Your task to perform on an android device: turn on priority inbox in the gmail app Image 0: 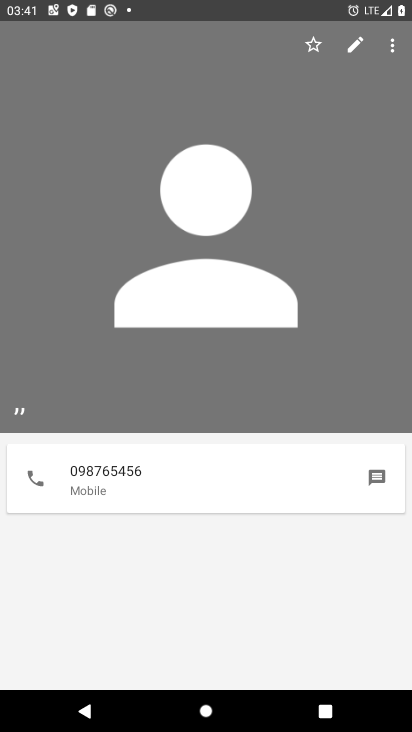
Step 0: press home button
Your task to perform on an android device: turn on priority inbox in the gmail app Image 1: 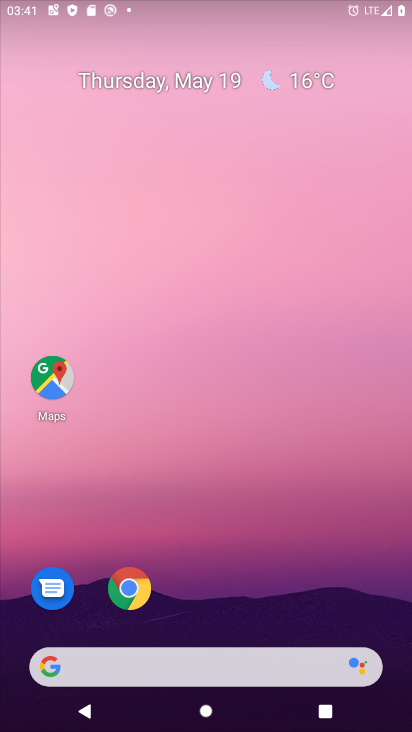
Step 1: drag from (239, 364) to (229, 67)
Your task to perform on an android device: turn on priority inbox in the gmail app Image 2: 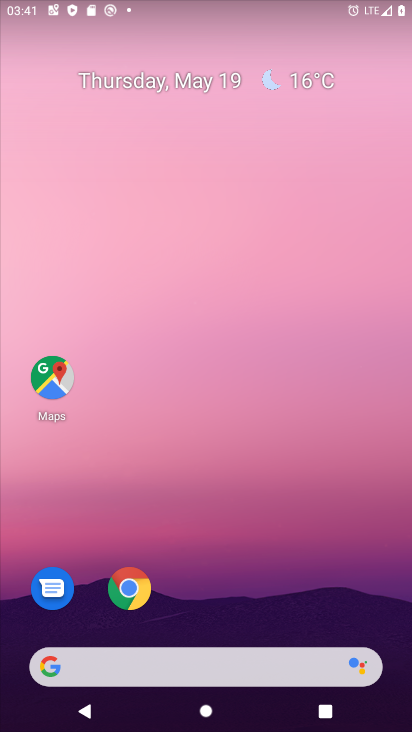
Step 2: drag from (237, 546) to (280, 121)
Your task to perform on an android device: turn on priority inbox in the gmail app Image 3: 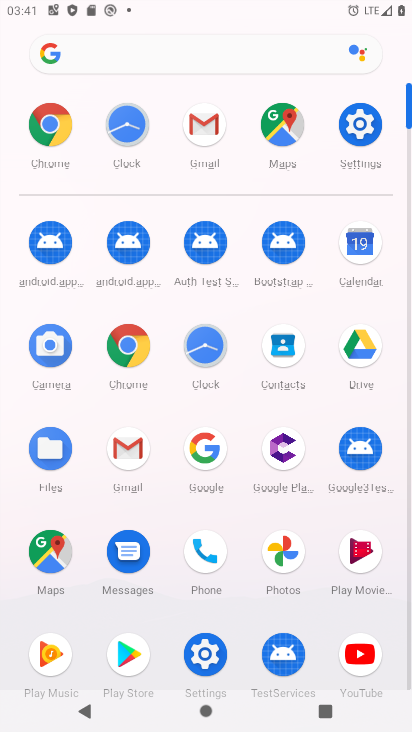
Step 3: click (206, 128)
Your task to perform on an android device: turn on priority inbox in the gmail app Image 4: 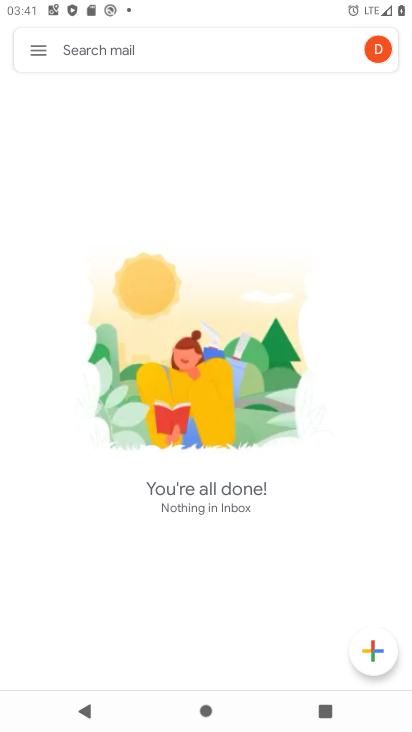
Step 4: click (24, 39)
Your task to perform on an android device: turn on priority inbox in the gmail app Image 5: 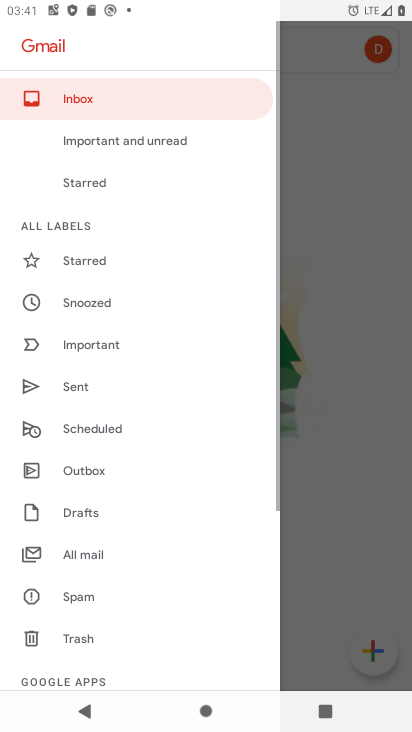
Step 5: drag from (83, 654) to (143, 87)
Your task to perform on an android device: turn on priority inbox in the gmail app Image 6: 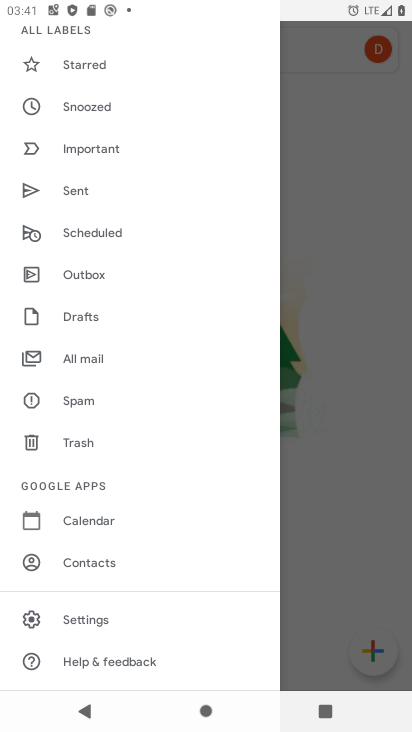
Step 6: click (100, 619)
Your task to perform on an android device: turn on priority inbox in the gmail app Image 7: 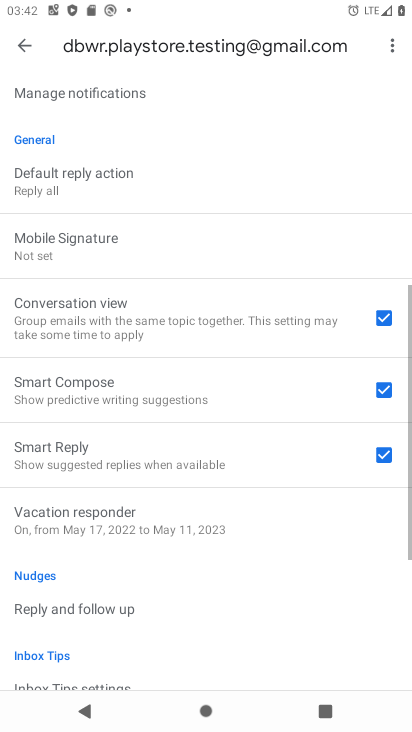
Step 7: drag from (219, 578) to (258, 55)
Your task to perform on an android device: turn on priority inbox in the gmail app Image 8: 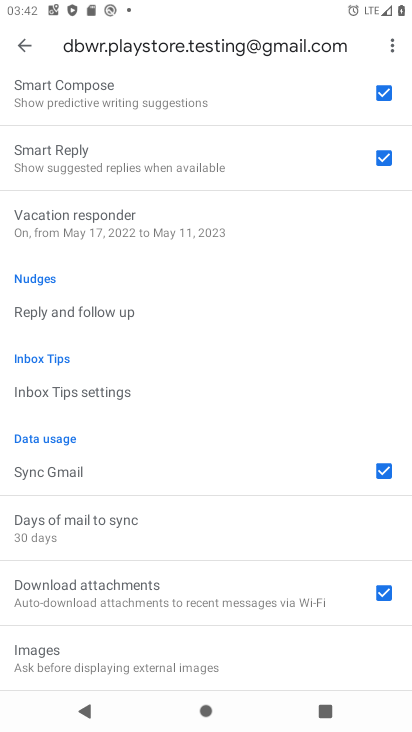
Step 8: drag from (198, 255) to (236, 707)
Your task to perform on an android device: turn on priority inbox in the gmail app Image 9: 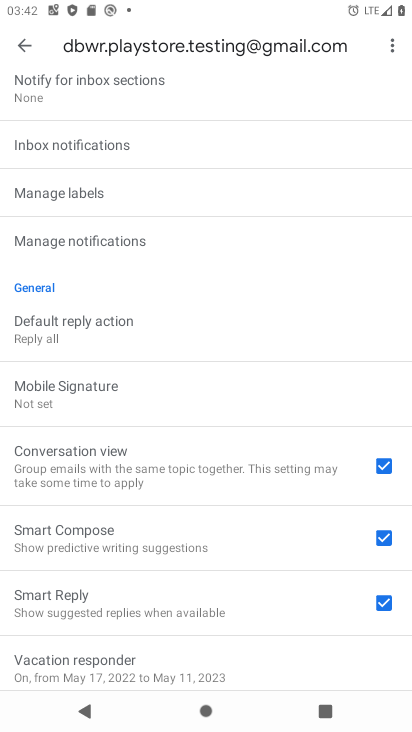
Step 9: drag from (181, 203) to (236, 648)
Your task to perform on an android device: turn on priority inbox in the gmail app Image 10: 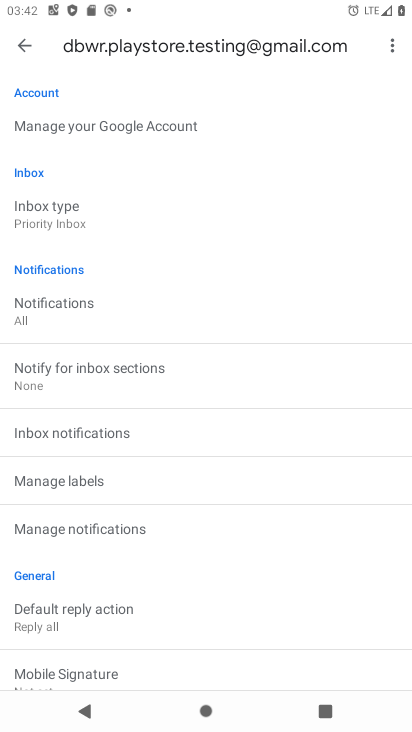
Step 10: drag from (168, 225) to (193, 576)
Your task to perform on an android device: turn on priority inbox in the gmail app Image 11: 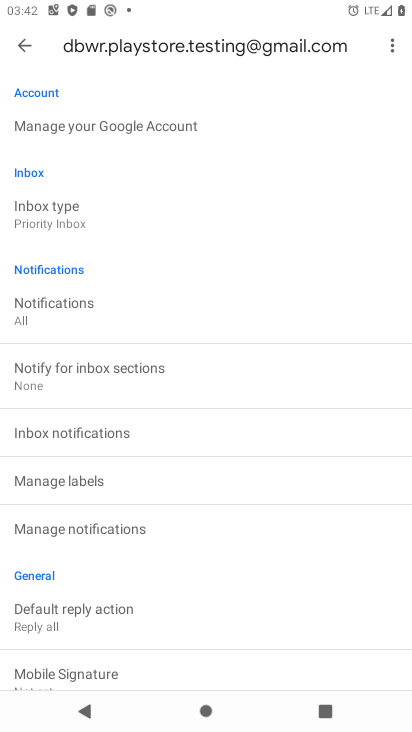
Step 11: drag from (183, 539) to (273, 153)
Your task to perform on an android device: turn on priority inbox in the gmail app Image 12: 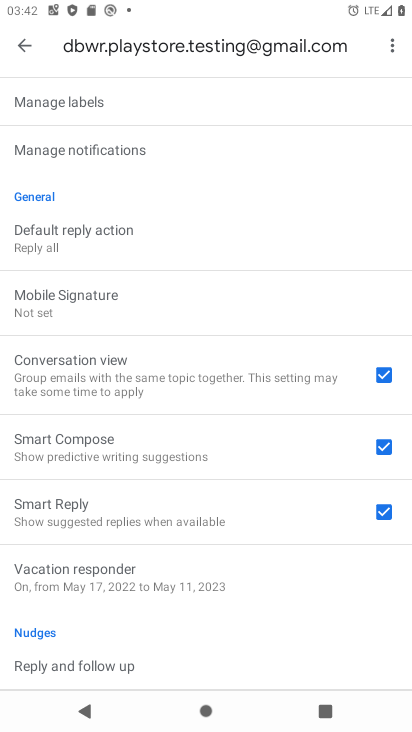
Step 12: drag from (199, 560) to (263, 138)
Your task to perform on an android device: turn on priority inbox in the gmail app Image 13: 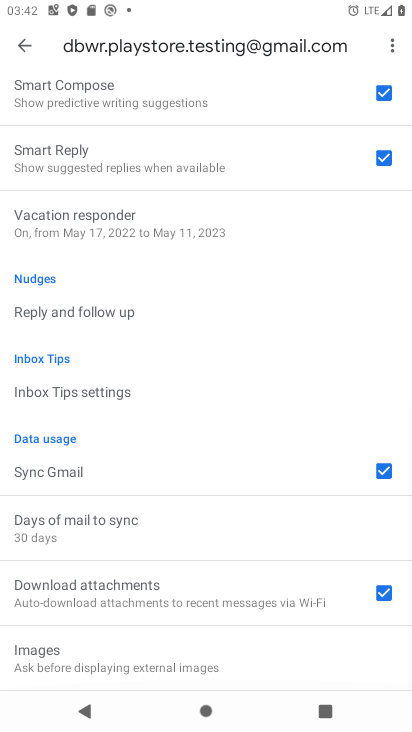
Step 13: drag from (257, 159) to (269, 659)
Your task to perform on an android device: turn on priority inbox in the gmail app Image 14: 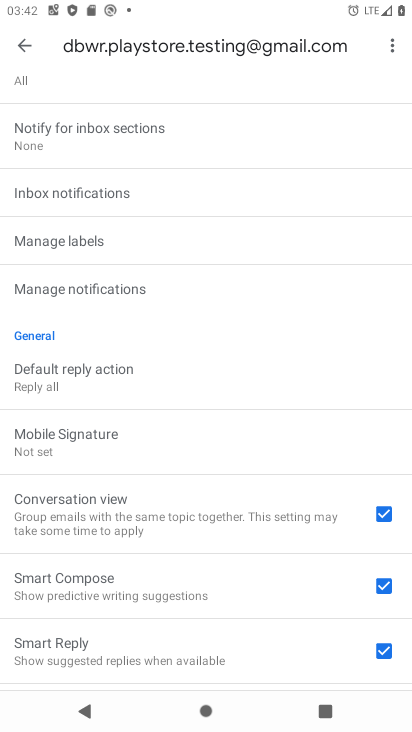
Step 14: drag from (127, 193) to (197, 602)
Your task to perform on an android device: turn on priority inbox in the gmail app Image 15: 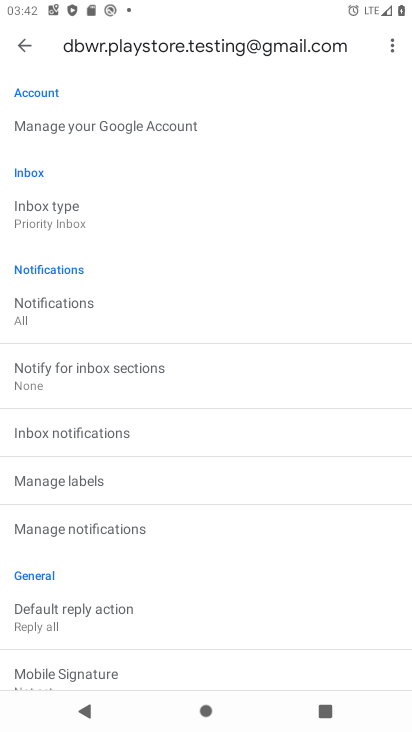
Step 15: click (78, 216)
Your task to perform on an android device: turn on priority inbox in the gmail app Image 16: 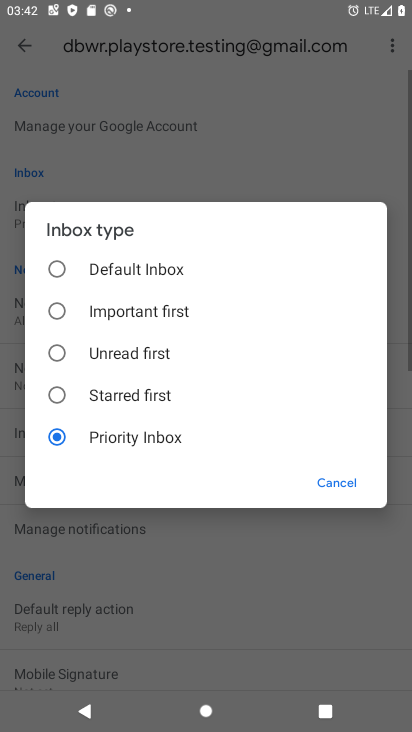
Step 16: task complete